Your task to perform on an android device: change the clock display to show seconds Image 0: 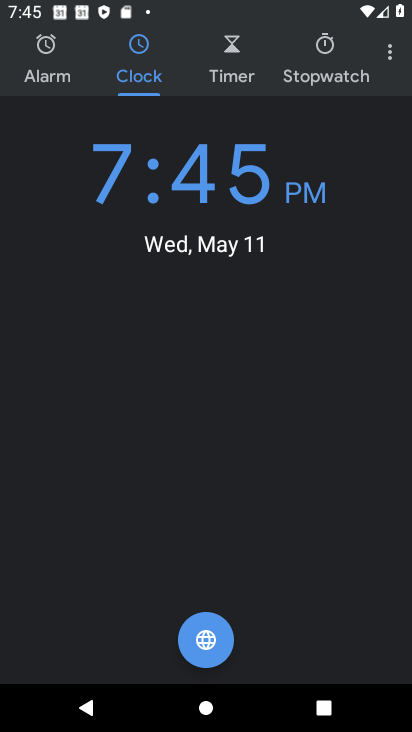
Step 0: press home button
Your task to perform on an android device: change the clock display to show seconds Image 1: 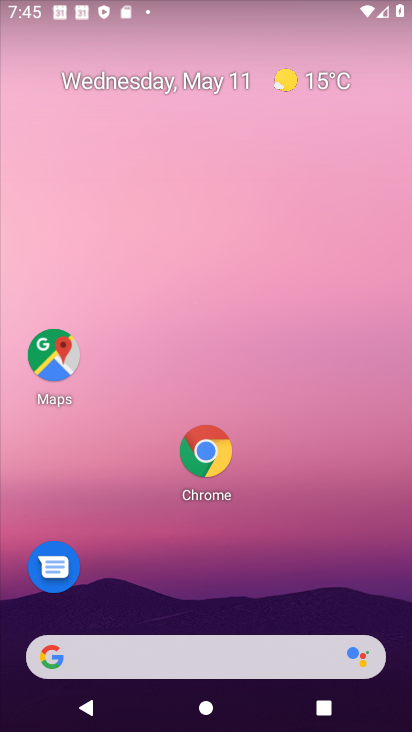
Step 1: drag from (150, 649) to (324, 119)
Your task to perform on an android device: change the clock display to show seconds Image 2: 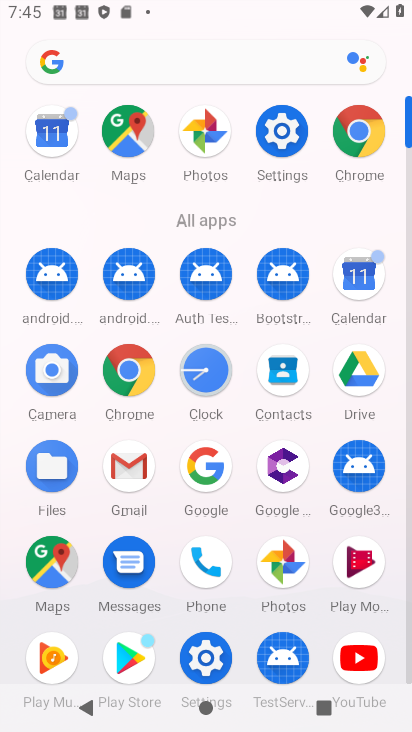
Step 2: click (206, 378)
Your task to perform on an android device: change the clock display to show seconds Image 3: 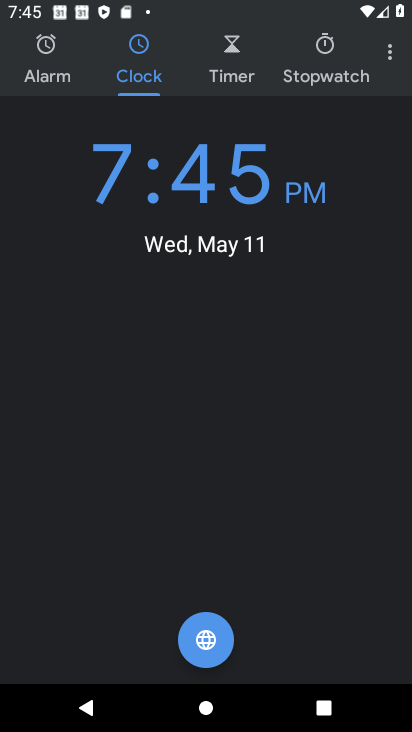
Step 3: click (390, 55)
Your task to perform on an android device: change the clock display to show seconds Image 4: 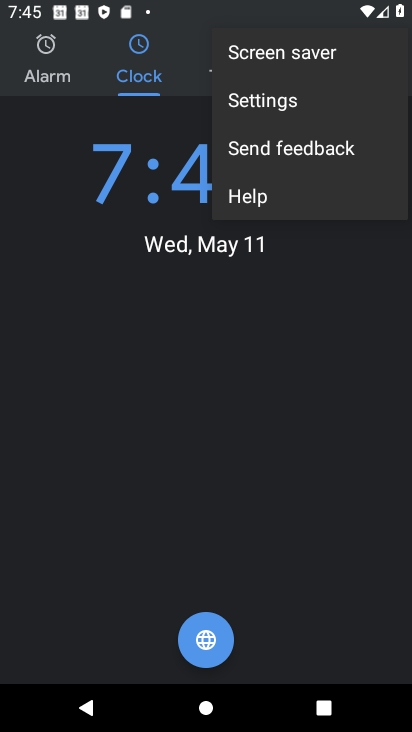
Step 4: click (266, 104)
Your task to perform on an android device: change the clock display to show seconds Image 5: 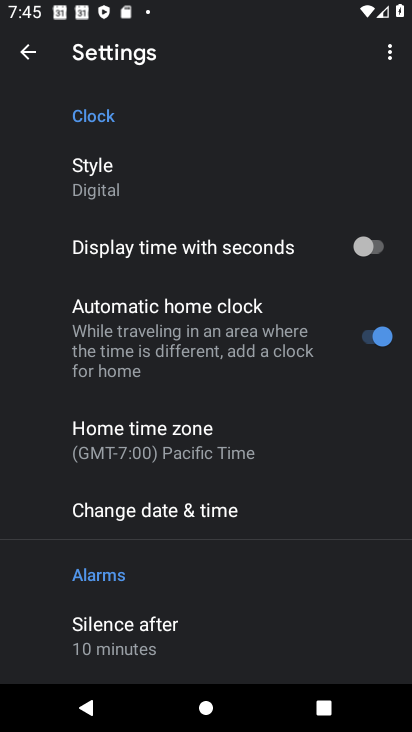
Step 5: click (382, 248)
Your task to perform on an android device: change the clock display to show seconds Image 6: 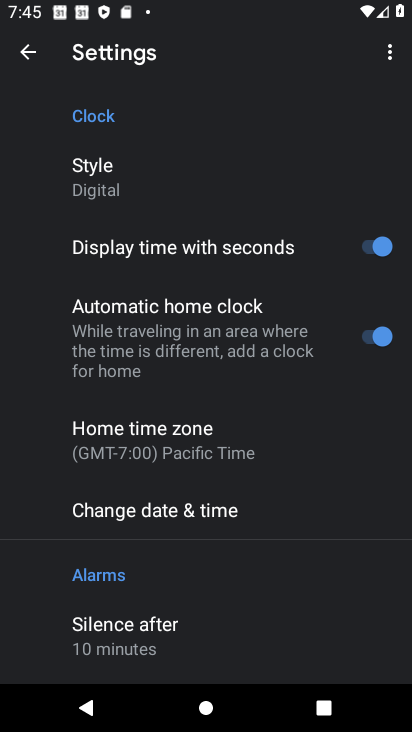
Step 6: task complete